Your task to perform on an android device: turn on wifi Image 0: 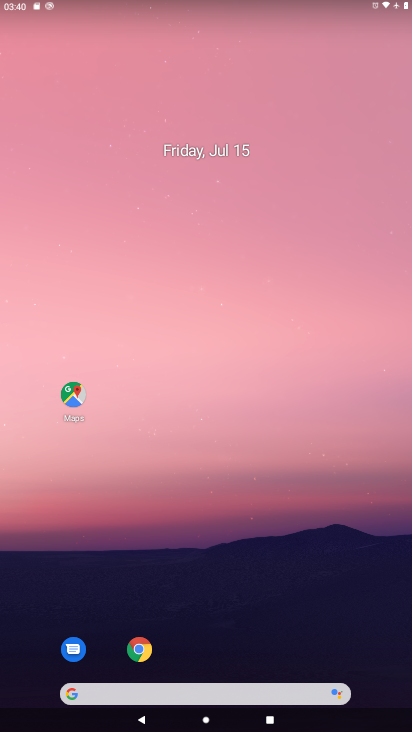
Step 0: drag from (385, 660) to (302, 80)
Your task to perform on an android device: turn on wifi Image 1: 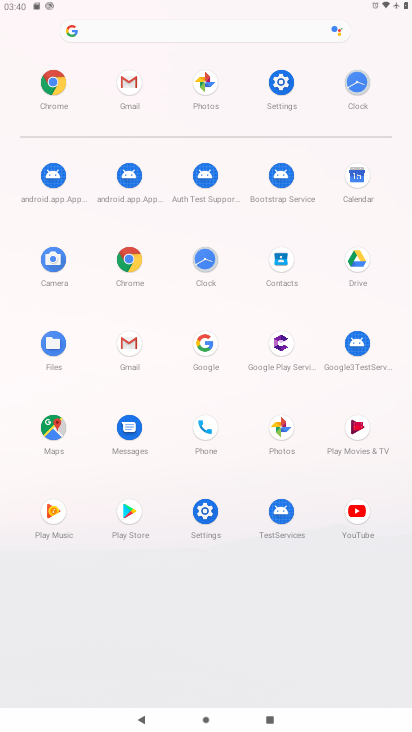
Step 1: click (204, 511)
Your task to perform on an android device: turn on wifi Image 2: 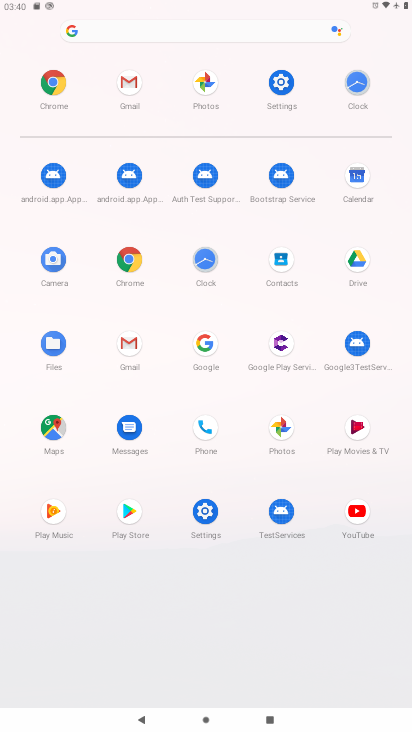
Step 2: click (204, 511)
Your task to perform on an android device: turn on wifi Image 3: 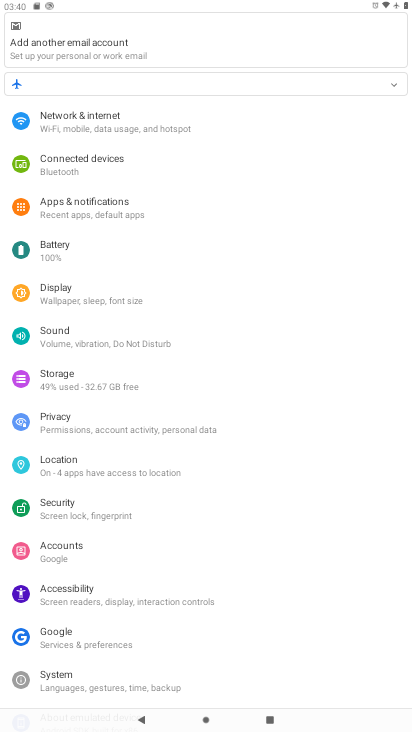
Step 3: click (68, 114)
Your task to perform on an android device: turn on wifi Image 4: 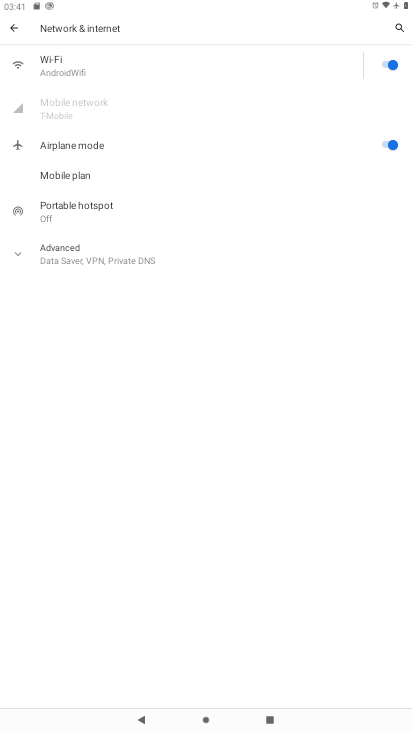
Step 4: task complete